Your task to perform on an android device: turn off javascript in the chrome app Image 0: 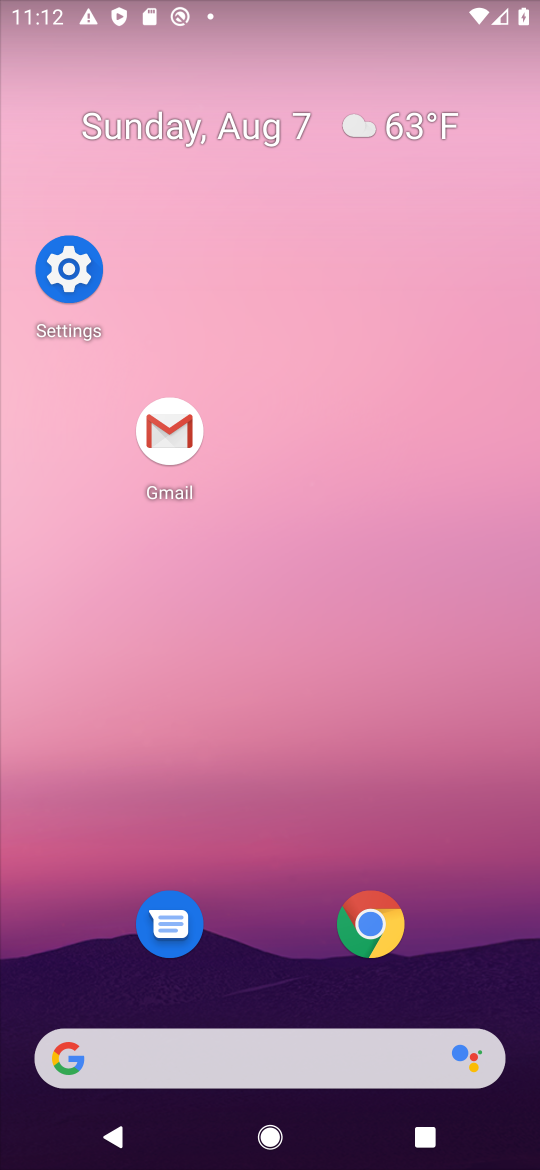
Step 0: click (372, 910)
Your task to perform on an android device: turn off javascript in the chrome app Image 1: 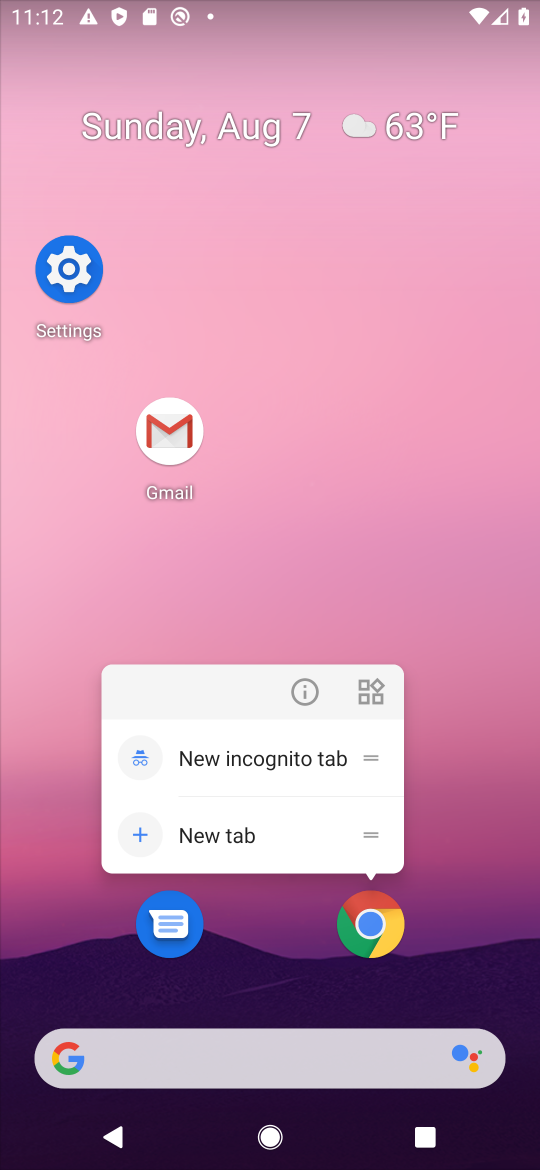
Step 1: click (372, 910)
Your task to perform on an android device: turn off javascript in the chrome app Image 2: 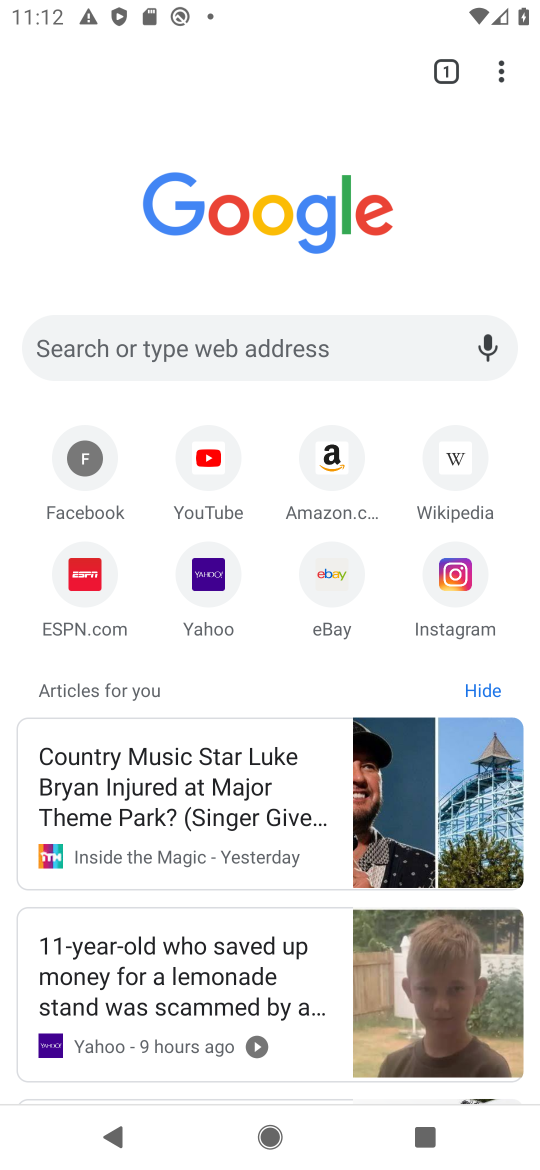
Step 2: click (506, 70)
Your task to perform on an android device: turn off javascript in the chrome app Image 3: 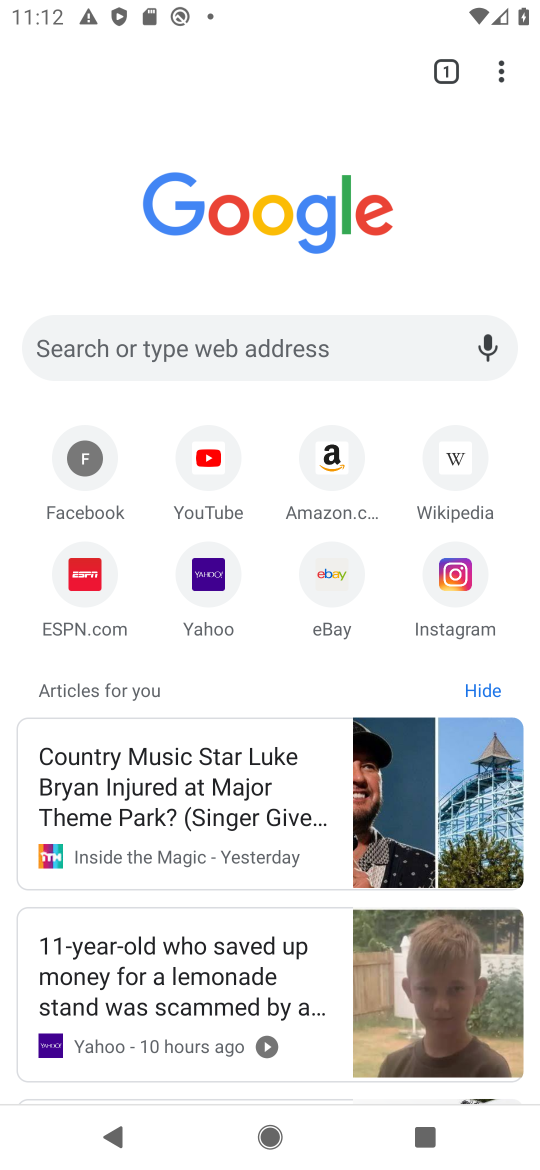
Step 3: click (499, 67)
Your task to perform on an android device: turn off javascript in the chrome app Image 4: 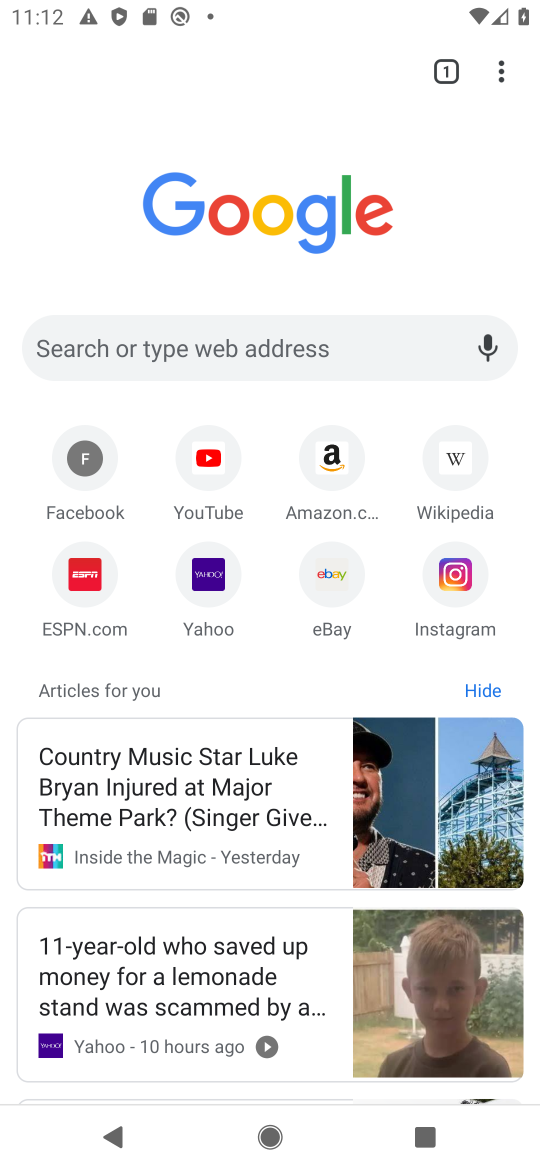
Step 4: click (501, 82)
Your task to perform on an android device: turn off javascript in the chrome app Image 5: 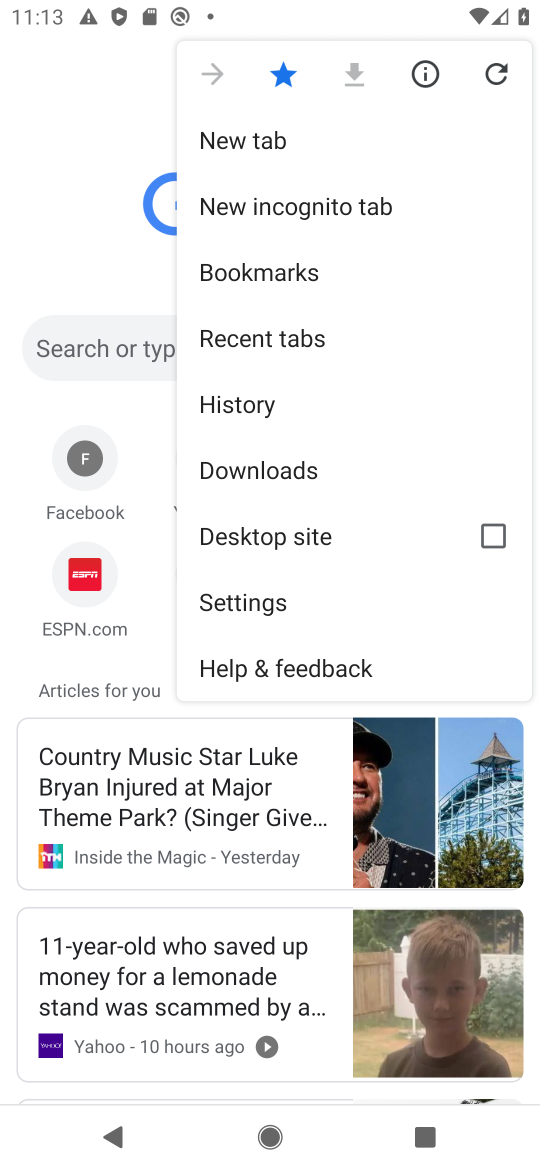
Step 5: click (299, 608)
Your task to perform on an android device: turn off javascript in the chrome app Image 6: 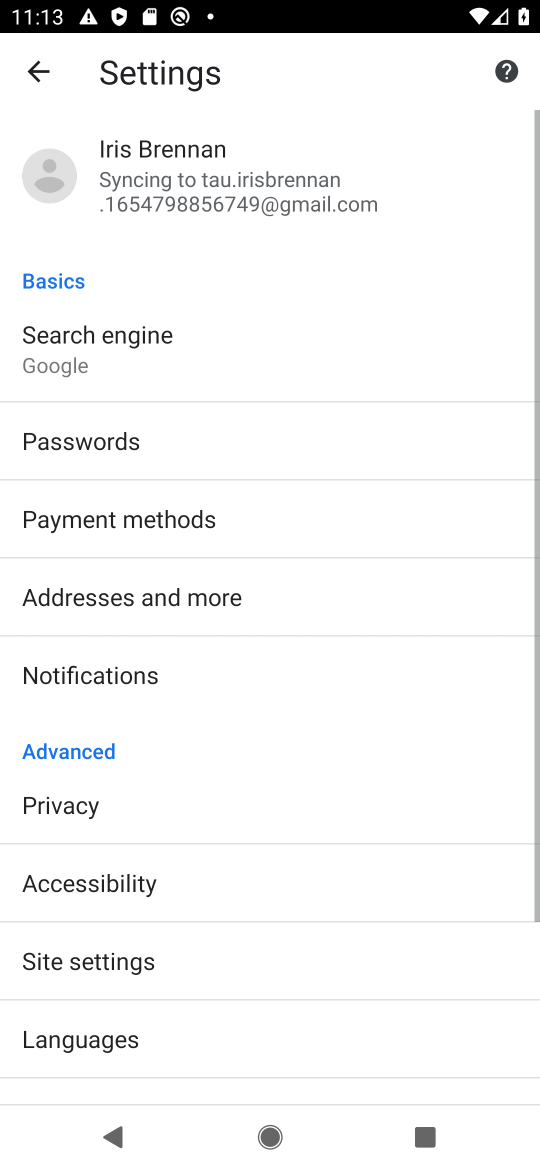
Step 6: drag from (215, 909) to (176, 253)
Your task to perform on an android device: turn off javascript in the chrome app Image 7: 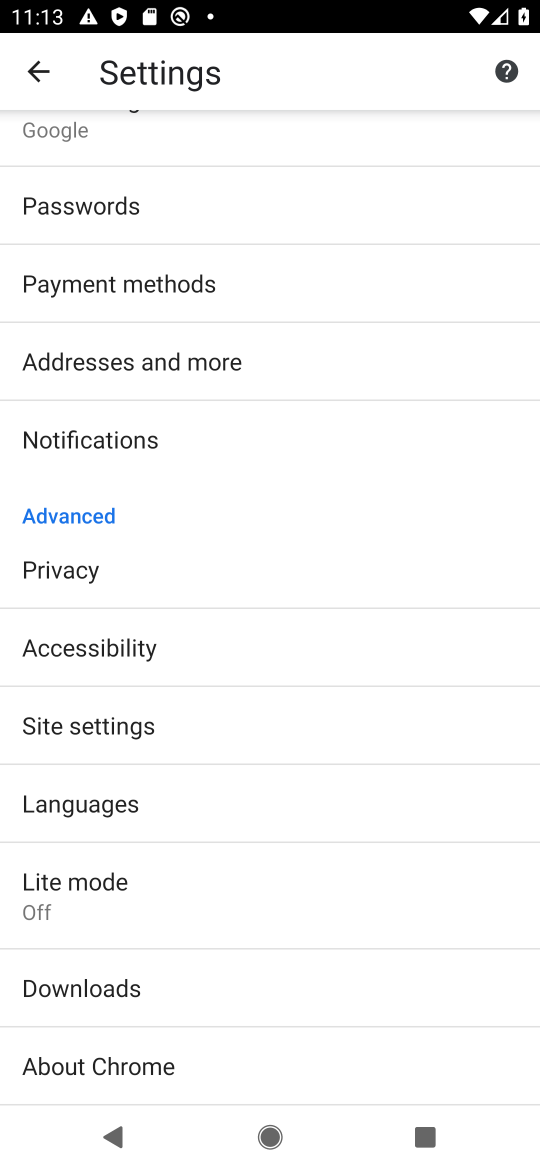
Step 7: click (201, 740)
Your task to perform on an android device: turn off javascript in the chrome app Image 8: 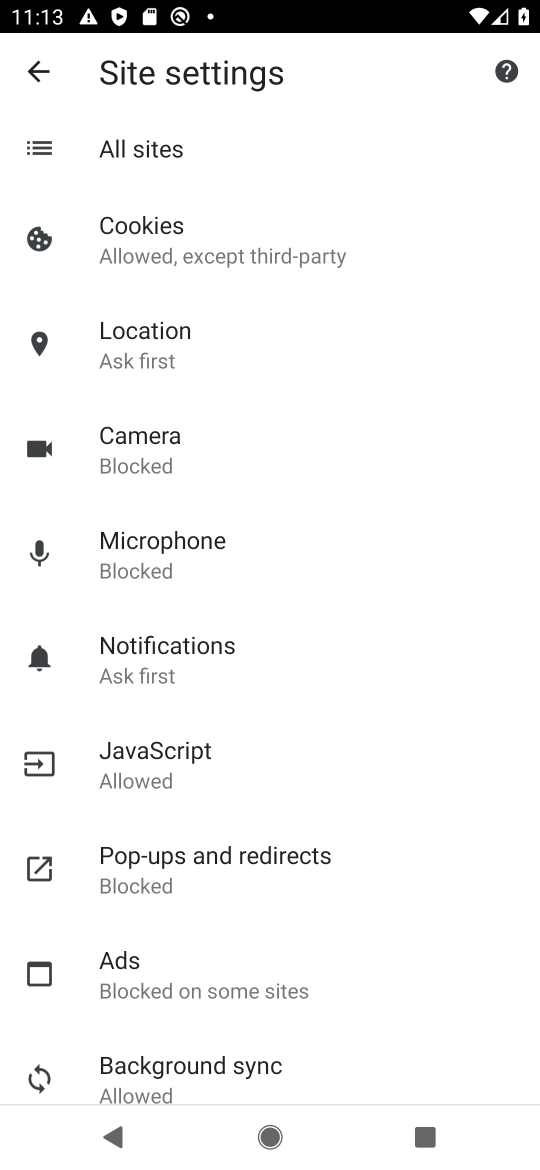
Step 8: click (205, 743)
Your task to perform on an android device: turn off javascript in the chrome app Image 9: 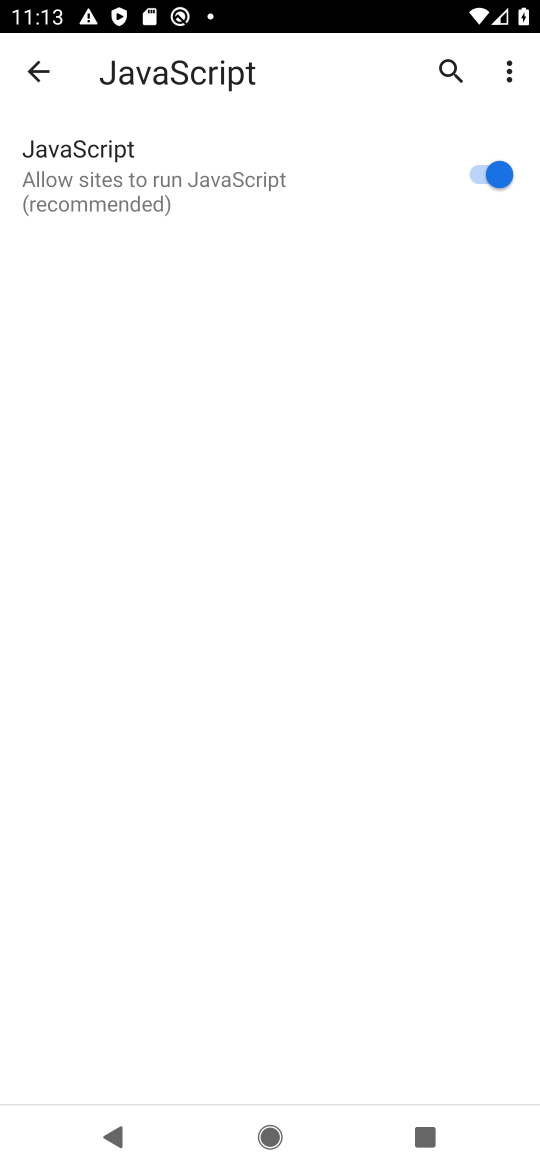
Step 9: click (493, 162)
Your task to perform on an android device: turn off javascript in the chrome app Image 10: 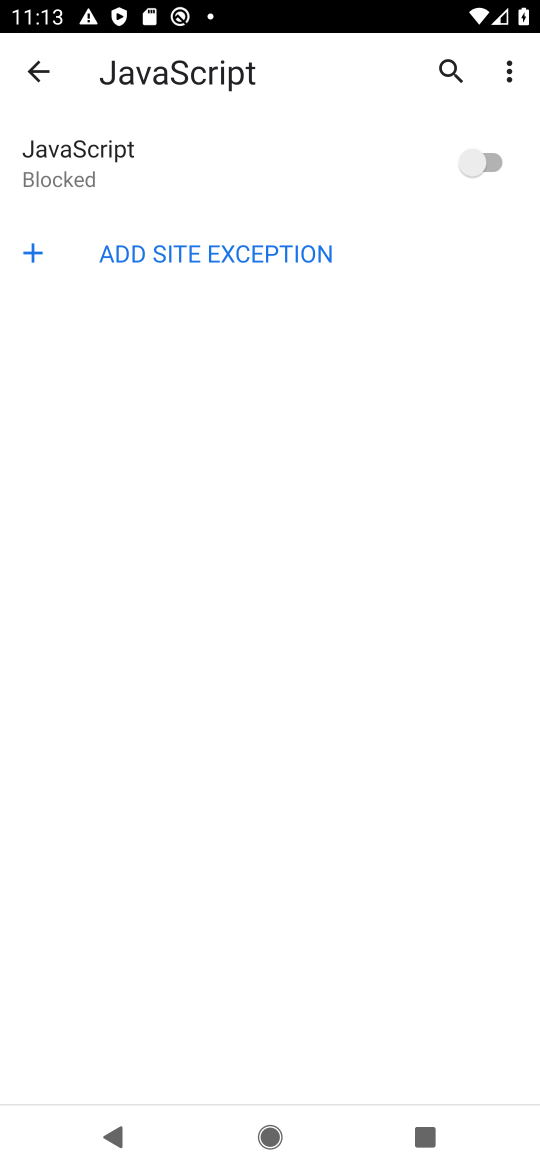
Step 10: task complete